Your task to perform on an android device: When is my next appointment? Image 0: 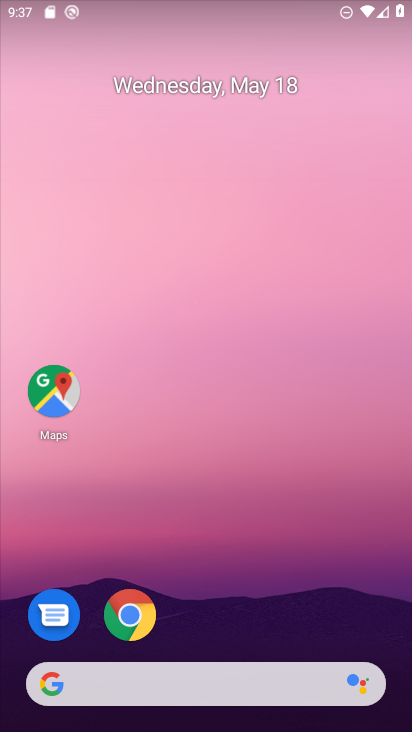
Step 0: drag from (245, 620) to (294, 115)
Your task to perform on an android device: When is my next appointment? Image 1: 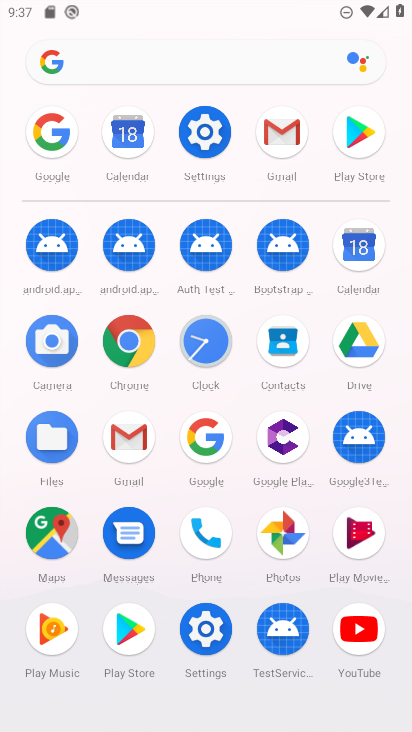
Step 1: click (358, 248)
Your task to perform on an android device: When is my next appointment? Image 2: 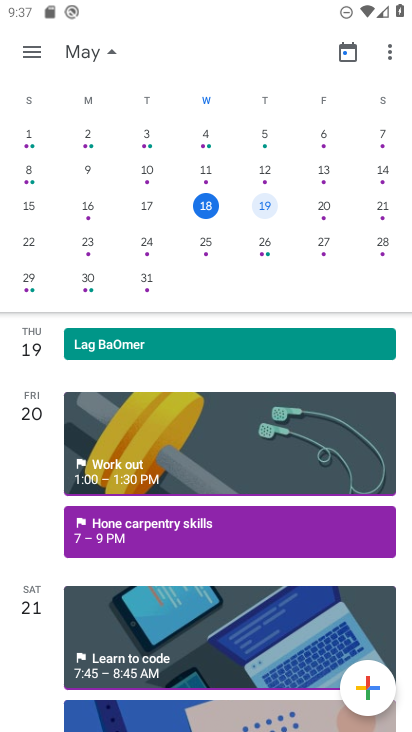
Step 2: click (329, 207)
Your task to perform on an android device: When is my next appointment? Image 3: 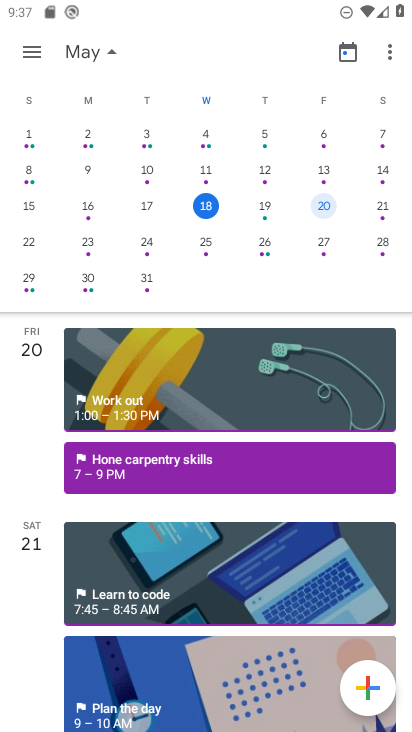
Step 3: task complete